Your task to perform on an android device: clear all cookies in the chrome app Image 0: 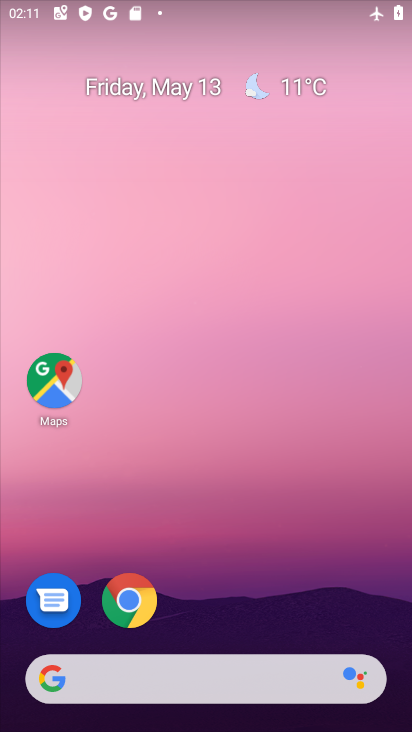
Step 0: drag from (198, 620) to (251, 69)
Your task to perform on an android device: clear all cookies in the chrome app Image 1: 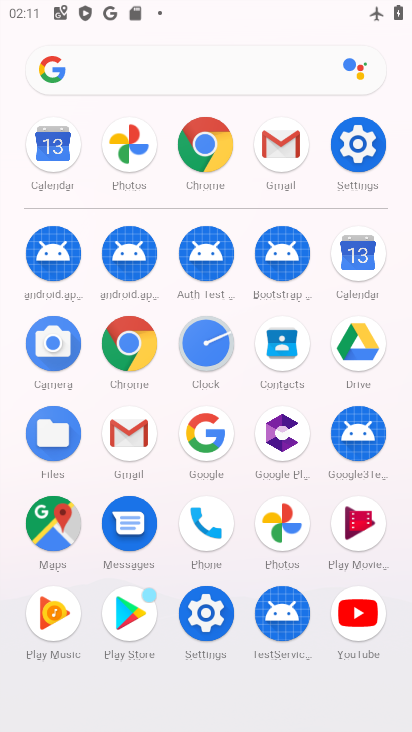
Step 1: click (133, 346)
Your task to perform on an android device: clear all cookies in the chrome app Image 2: 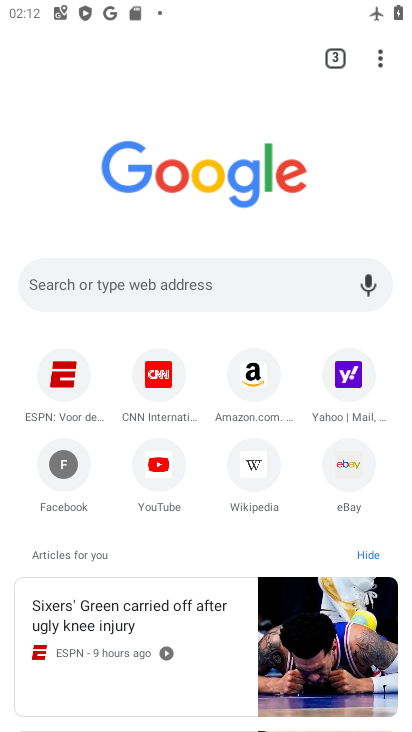
Step 2: click (381, 57)
Your task to perform on an android device: clear all cookies in the chrome app Image 3: 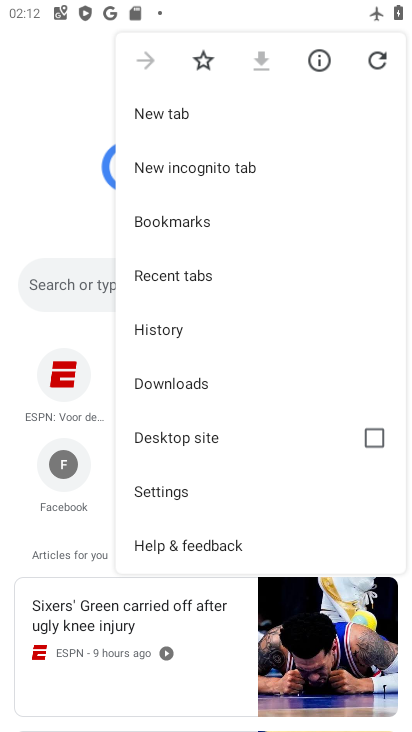
Step 3: click (224, 331)
Your task to perform on an android device: clear all cookies in the chrome app Image 4: 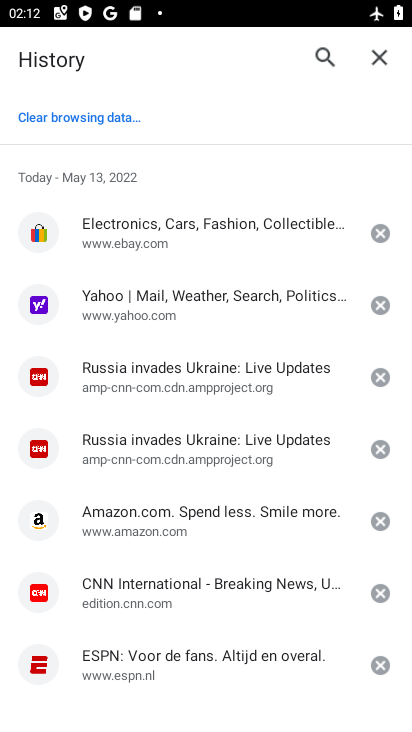
Step 4: click (80, 110)
Your task to perform on an android device: clear all cookies in the chrome app Image 5: 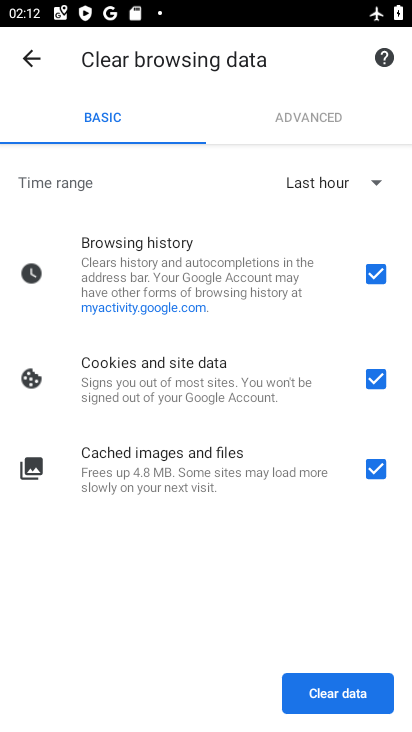
Step 5: click (366, 276)
Your task to perform on an android device: clear all cookies in the chrome app Image 6: 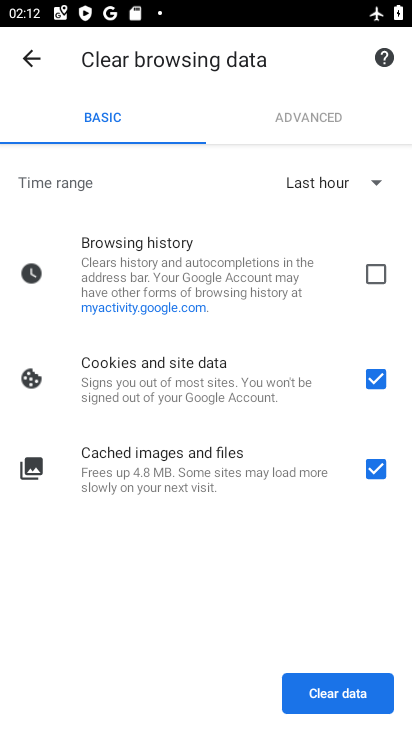
Step 6: click (347, 695)
Your task to perform on an android device: clear all cookies in the chrome app Image 7: 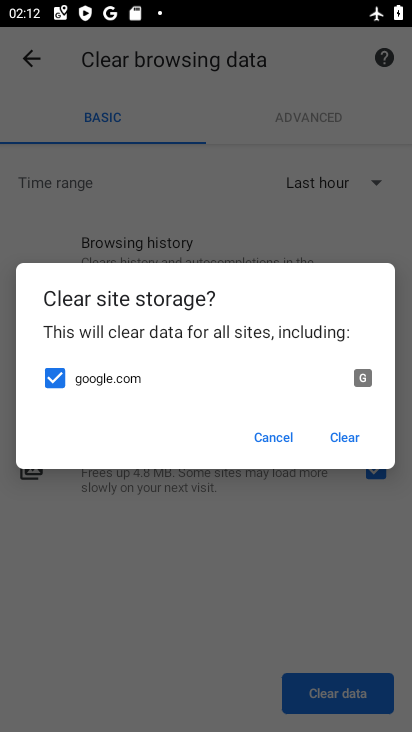
Step 7: click (337, 437)
Your task to perform on an android device: clear all cookies in the chrome app Image 8: 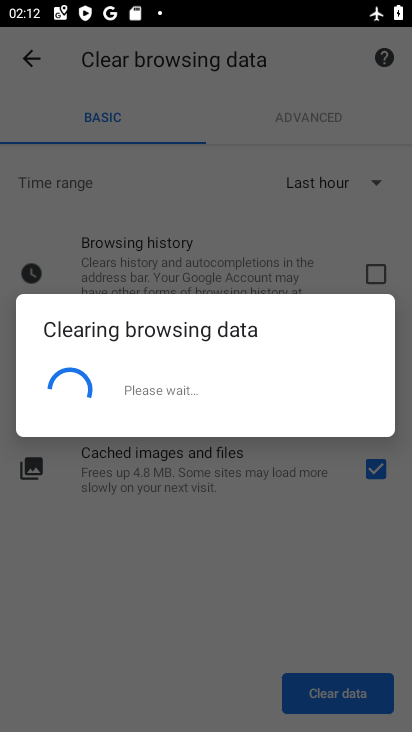
Step 8: task complete